Your task to perform on an android device: Open notification settings Image 0: 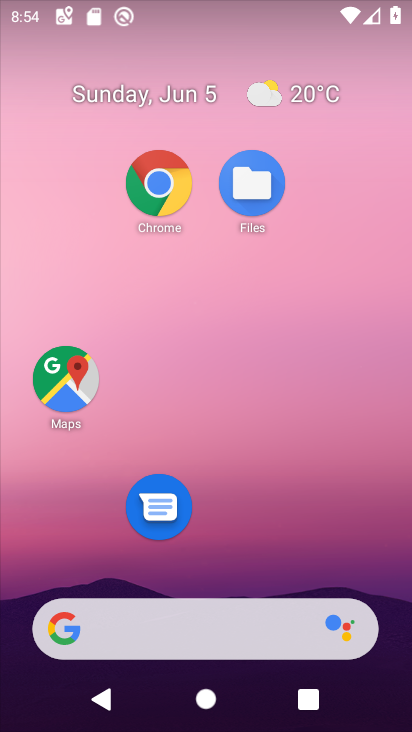
Step 0: drag from (221, 573) to (287, 0)
Your task to perform on an android device: Open notification settings Image 1: 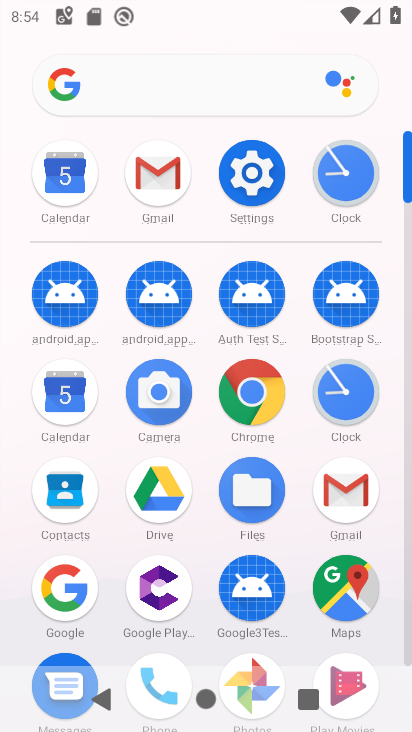
Step 1: click (260, 168)
Your task to perform on an android device: Open notification settings Image 2: 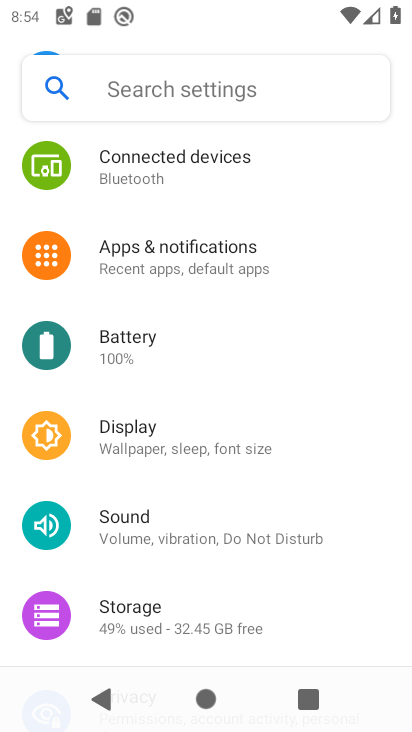
Step 2: click (323, 295)
Your task to perform on an android device: Open notification settings Image 3: 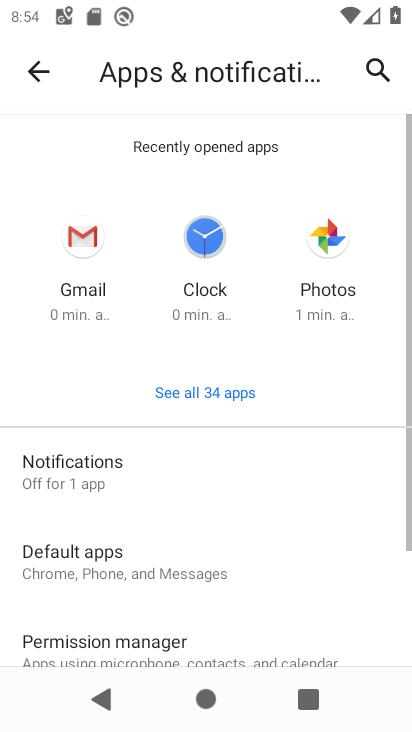
Step 3: click (119, 488)
Your task to perform on an android device: Open notification settings Image 4: 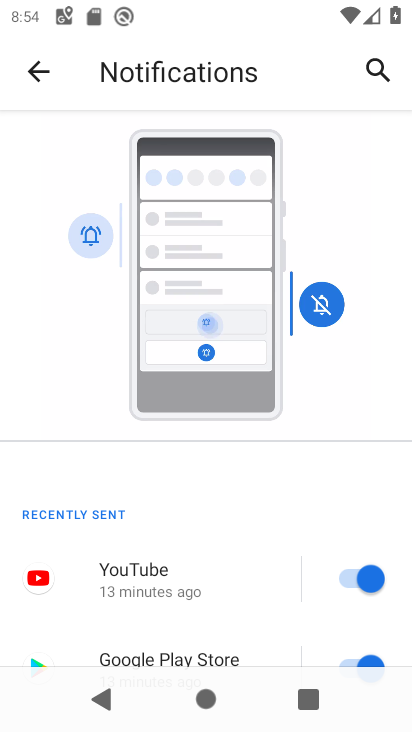
Step 4: task complete